Your task to perform on an android device: Go to sound settings Image 0: 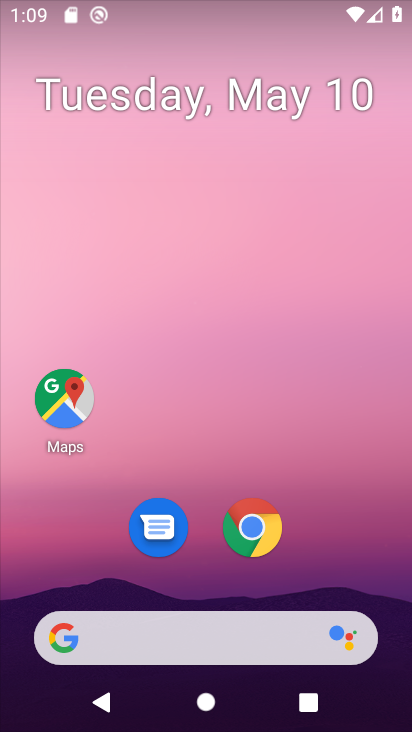
Step 0: drag from (196, 470) to (214, 56)
Your task to perform on an android device: Go to sound settings Image 1: 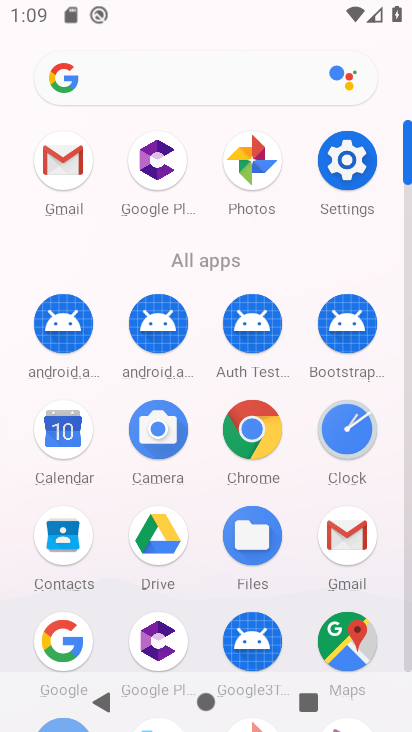
Step 1: click (342, 152)
Your task to perform on an android device: Go to sound settings Image 2: 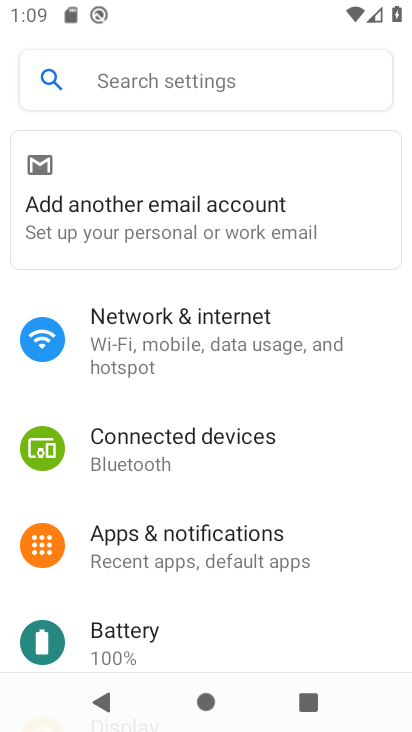
Step 2: drag from (216, 606) to (223, 258)
Your task to perform on an android device: Go to sound settings Image 3: 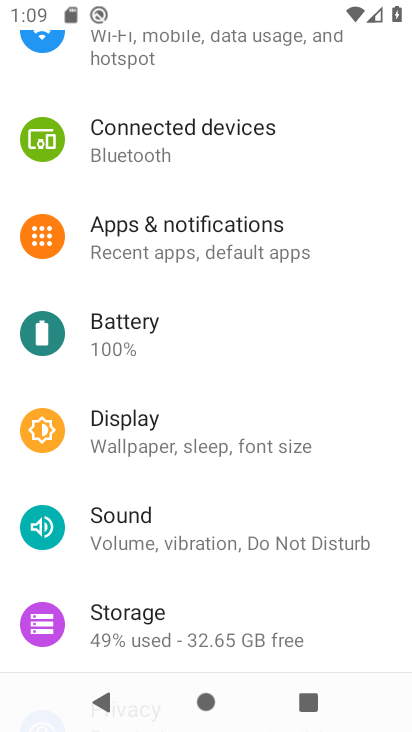
Step 3: click (161, 547)
Your task to perform on an android device: Go to sound settings Image 4: 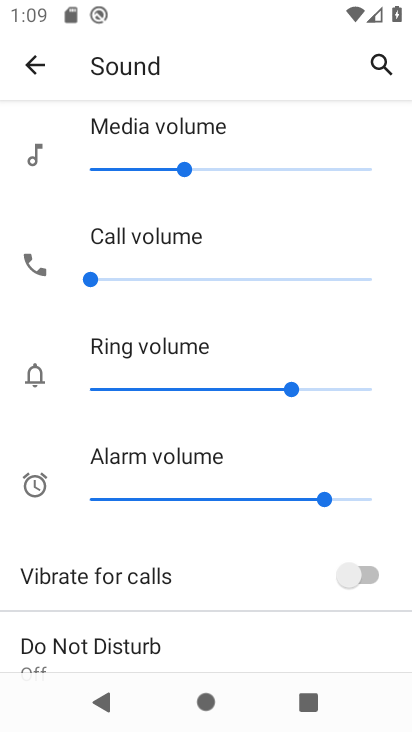
Step 4: task complete